Your task to perform on an android device: Go to Reddit.com Image 0: 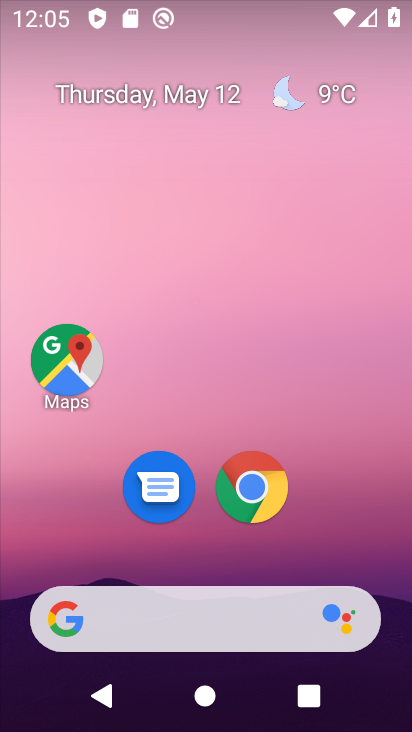
Step 0: drag from (248, 656) to (357, 294)
Your task to perform on an android device: Go to Reddit.com Image 1: 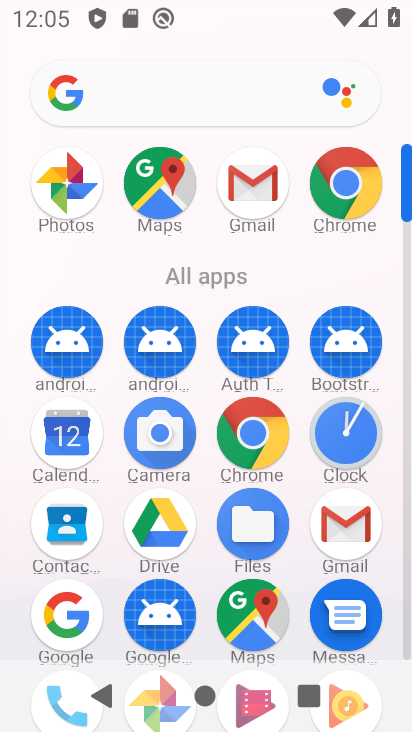
Step 1: click (374, 194)
Your task to perform on an android device: Go to Reddit.com Image 2: 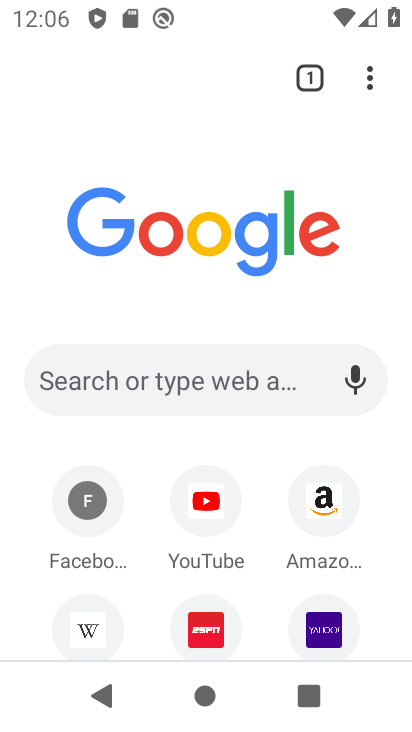
Step 2: click (122, 386)
Your task to perform on an android device: Go to Reddit.com Image 3: 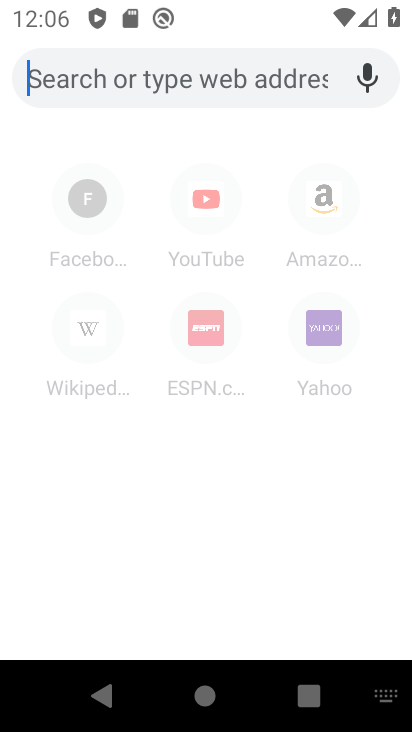
Step 3: click (394, 693)
Your task to perform on an android device: Go to Reddit.com Image 4: 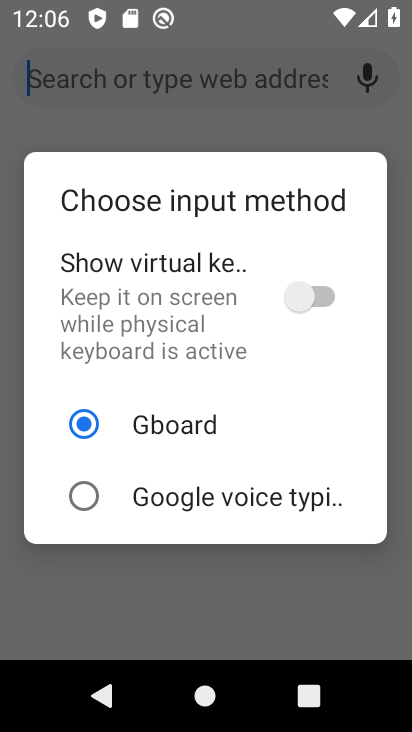
Step 4: click (328, 289)
Your task to perform on an android device: Go to Reddit.com Image 5: 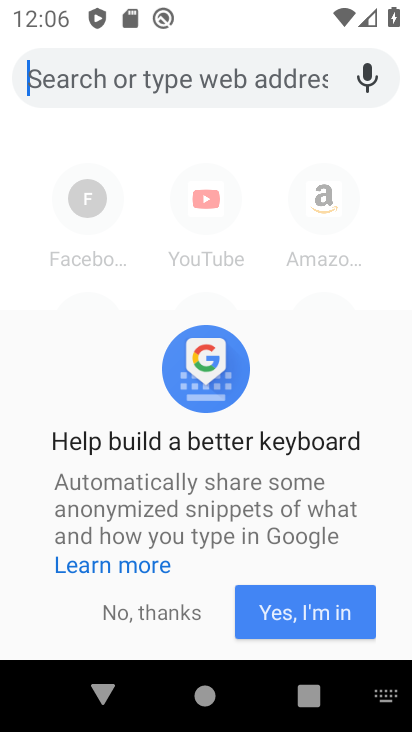
Step 5: click (139, 610)
Your task to perform on an android device: Go to Reddit.com Image 6: 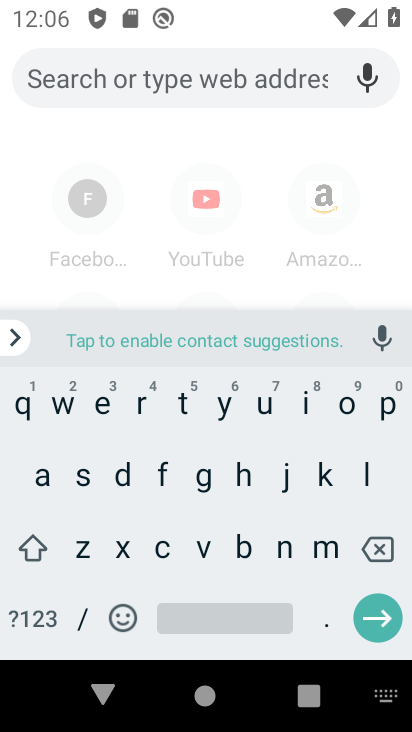
Step 6: click (139, 399)
Your task to perform on an android device: Go to Reddit.com Image 7: 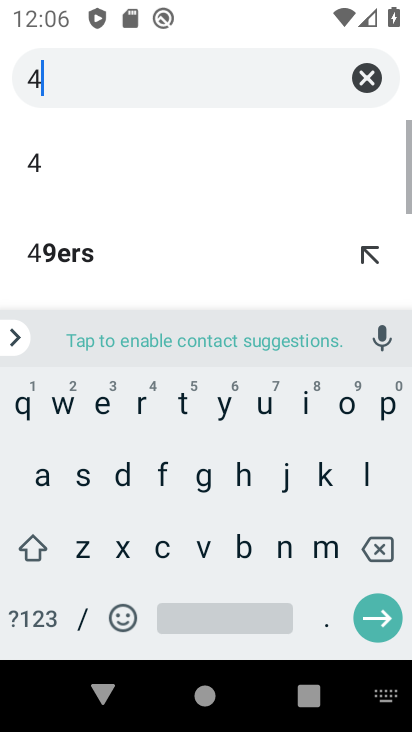
Step 7: click (107, 406)
Your task to perform on an android device: Go to Reddit.com Image 8: 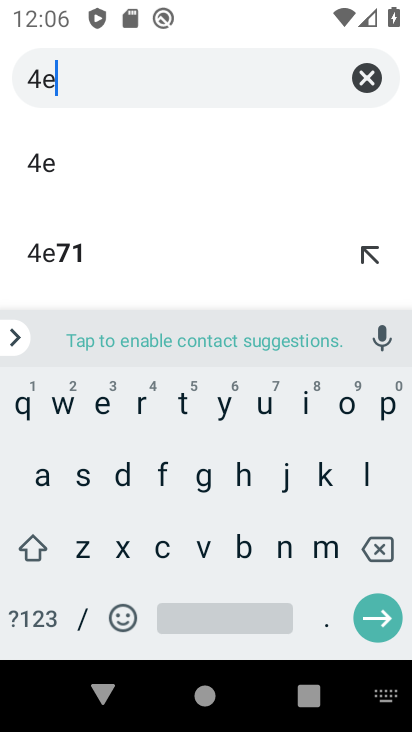
Step 8: click (362, 551)
Your task to perform on an android device: Go to Reddit.com Image 9: 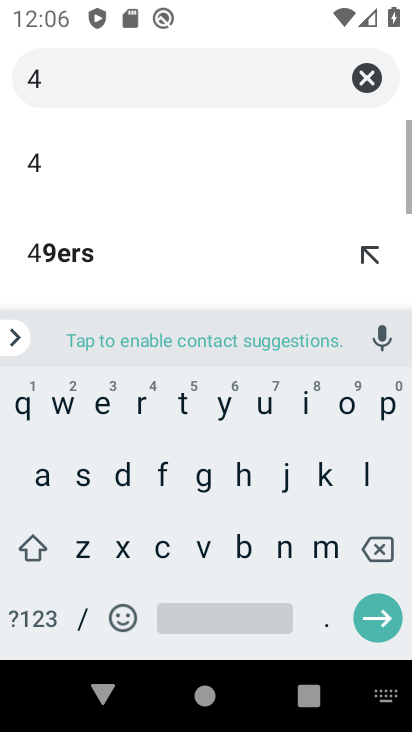
Step 9: click (362, 551)
Your task to perform on an android device: Go to Reddit.com Image 10: 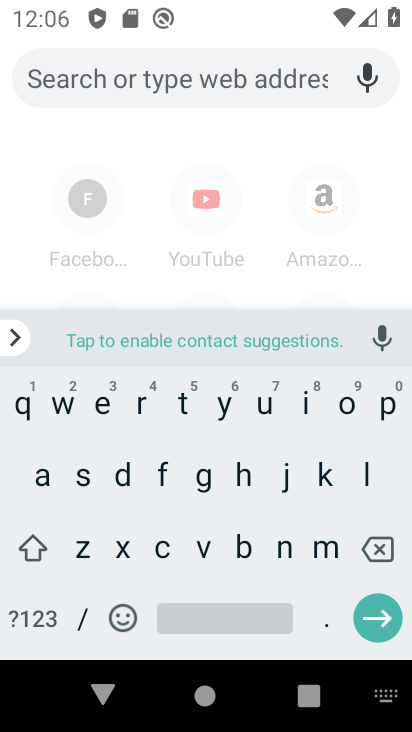
Step 10: click (138, 407)
Your task to perform on an android device: Go to Reddit.com Image 11: 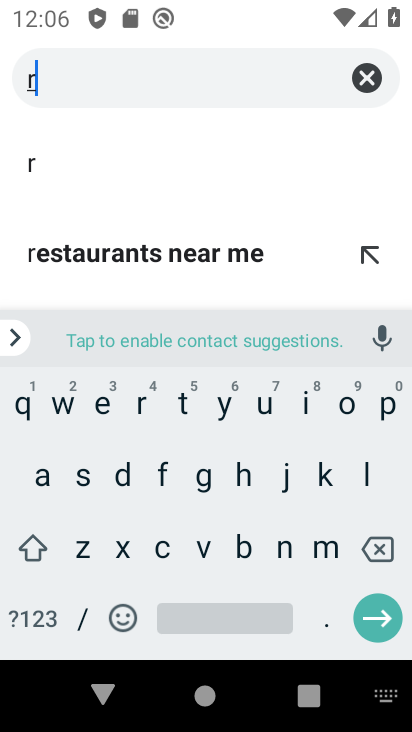
Step 11: click (100, 402)
Your task to perform on an android device: Go to Reddit.com Image 12: 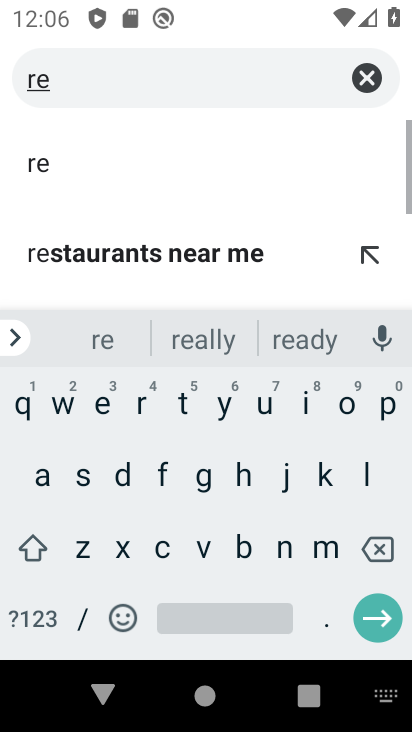
Step 12: click (122, 482)
Your task to perform on an android device: Go to Reddit.com Image 13: 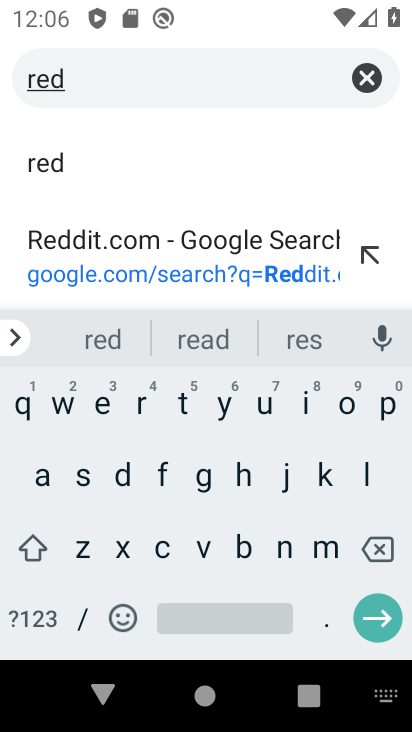
Step 13: click (153, 248)
Your task to perform on an android device: Go to Reddit.com Image 14: 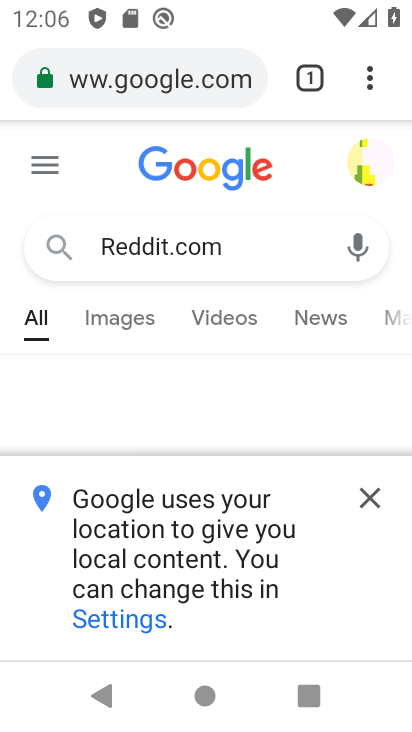
Step 14: click (369, 492)
Your task to perform on an android device: Go to Reddit.com Image 15: 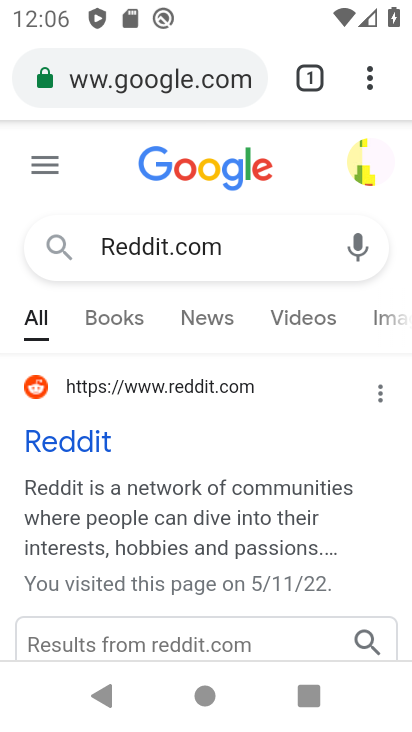
Step 15: click (49, 450)
Your task to perform on an android device: Go to Reddit.com Image 16: 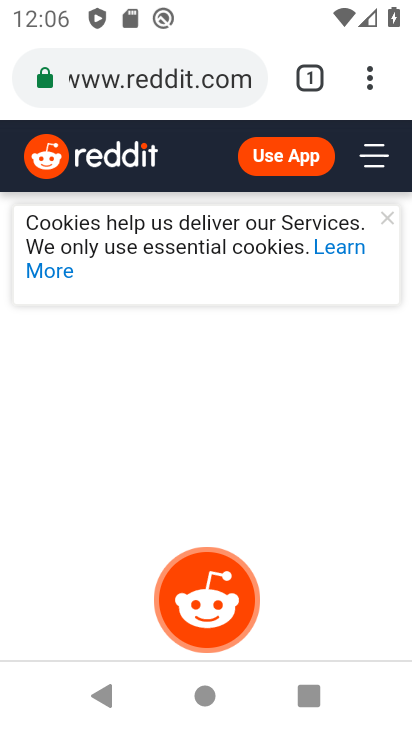
Step 16: task complete